Your task to perform on an android device: turn on showing notifications on the lock screen Image 0: 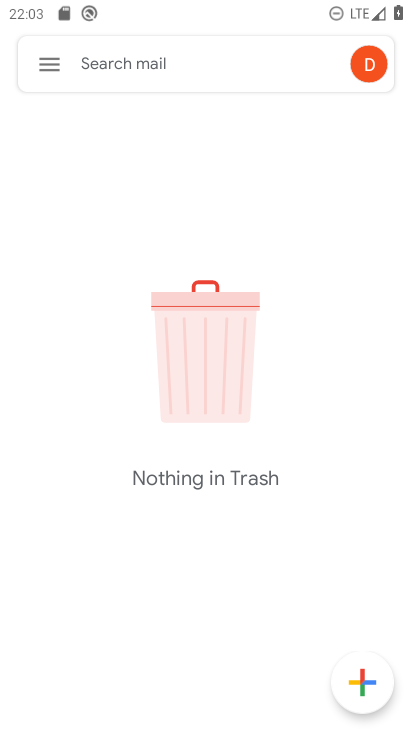
Step 0: press back button
Your task to perform on an android device: turn on showing notifications on the lock screen Image 1: 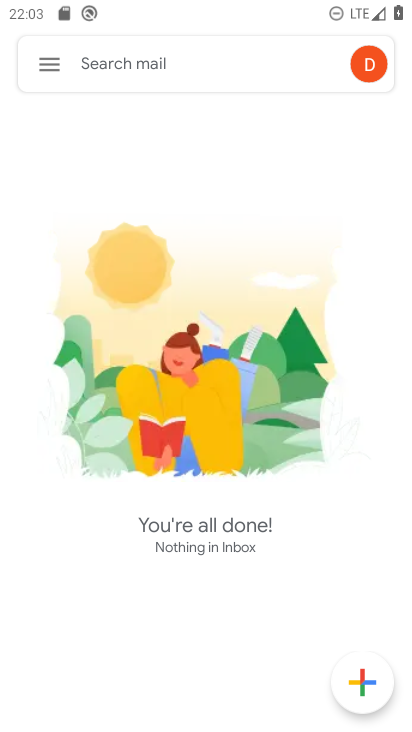
Step 1: press home button
Your task to perform on an android device: turn on showing notifications on the lock screen Image 2: 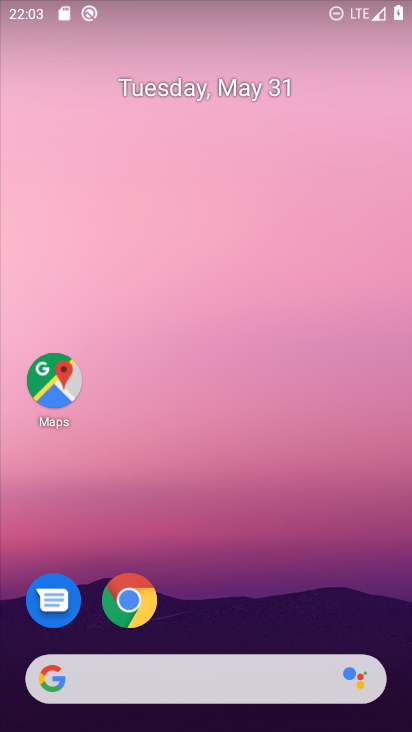
Step 2: drag from (224, 573) to (295, 21)
Your task to perform on an android device: turn on showing notifications on the lock screen Image 3: 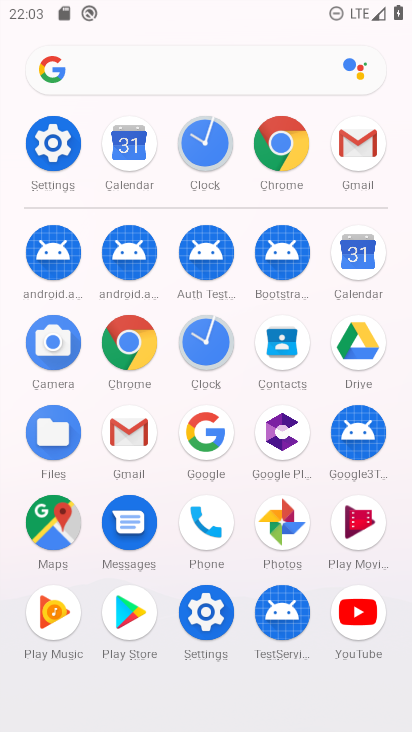
Step 3: click (48, 143)
Your task to perform on an android device: turn on showing notifications on the lock screen Image 4: 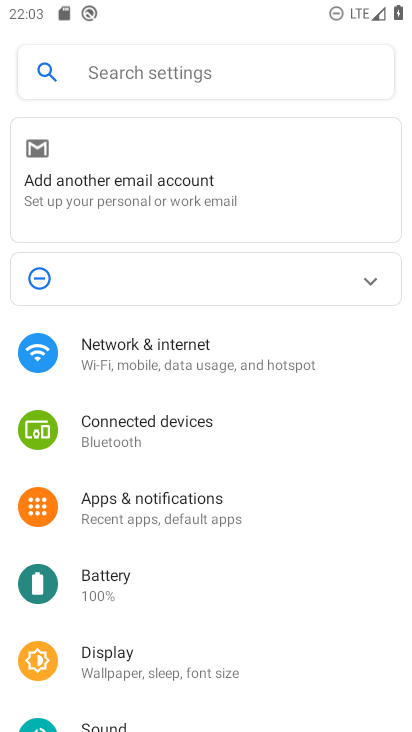
Step 4: click (195, 515)
Your task to perform on an android device: turn on showing notifications on the lock screen Image 5: 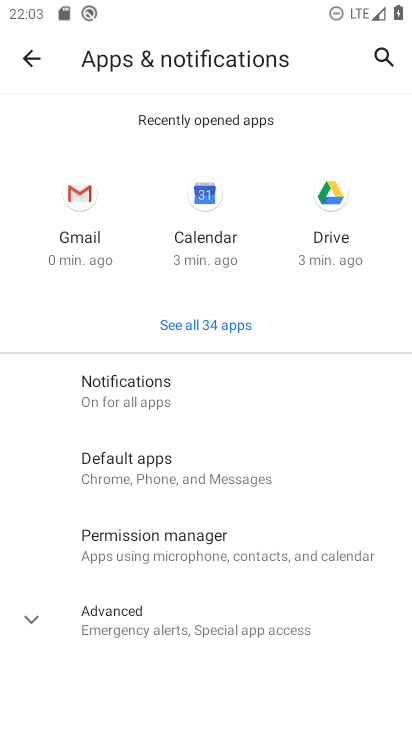
Step 5: click (159, 389)
Your task to perform on an android device: turn on showing notifications on the lock screen Image 6: 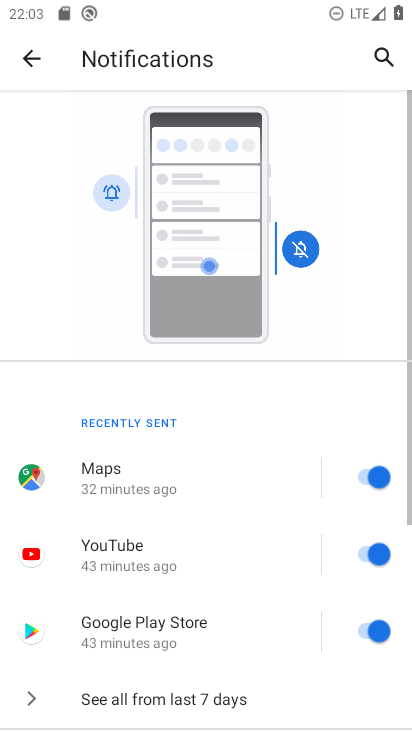
Step 6: drag from (166, 668) to (206, 161)
Your task to perform on an android device: turn on showing notifications on the lock screen Image 7: 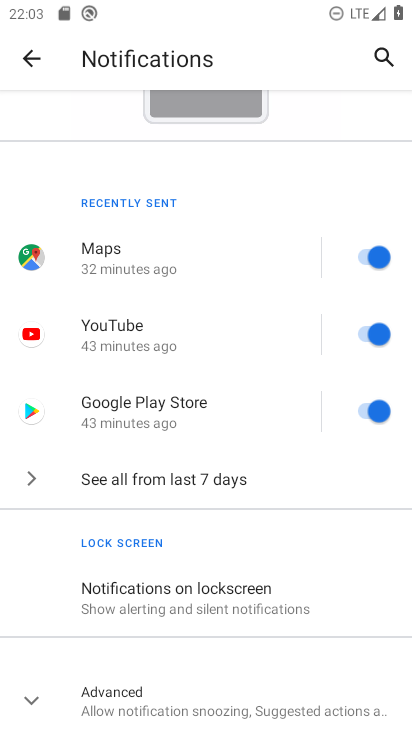
Step 7: click (141, 603)
Your task to perform on an android device: turn on showing notifications on the lock screen Image 8: 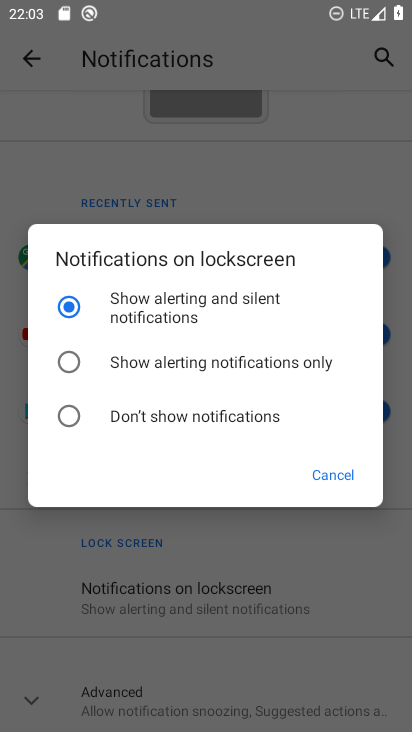
Step 8: task complete